Your task to perform on an android device: Open Yahoo.com Image 0: 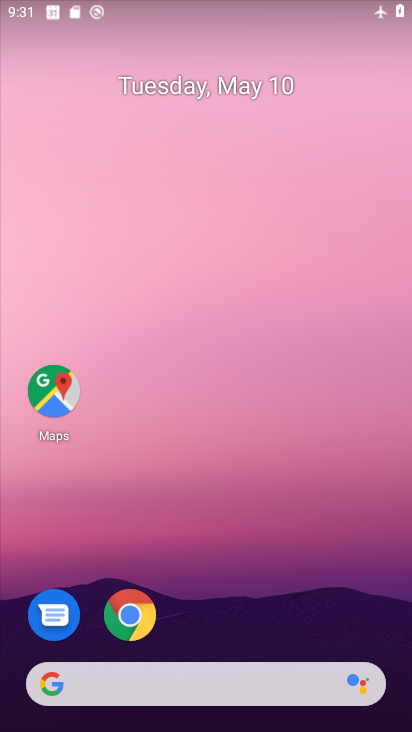
Step 0: drag from (203, 639) to (257, 35)
Your task to perform on an android device: Open Yahoo.com Image 1: 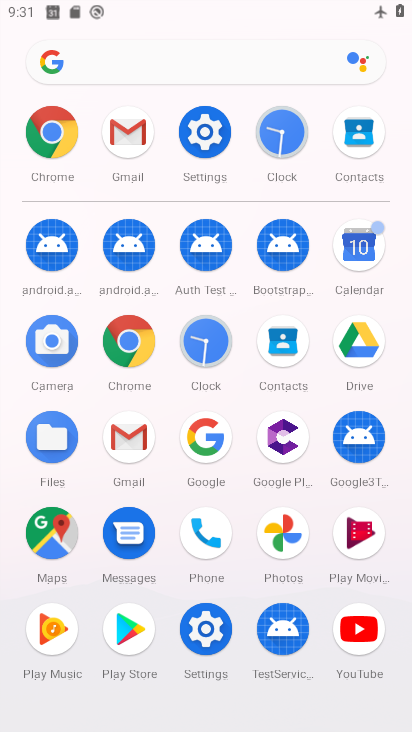
Step 1: click (214, 351)
Your task to perform on an android device: Open Yahoo.com Image 2: 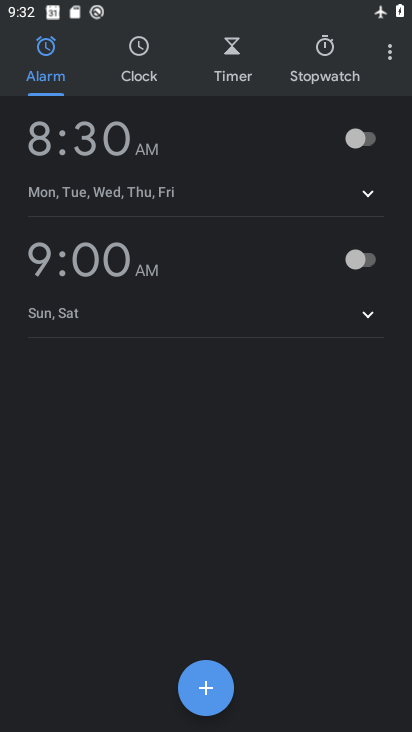
Step 2: press home button
Your task to perform on an android device: Open Yahoo.com Image 3: 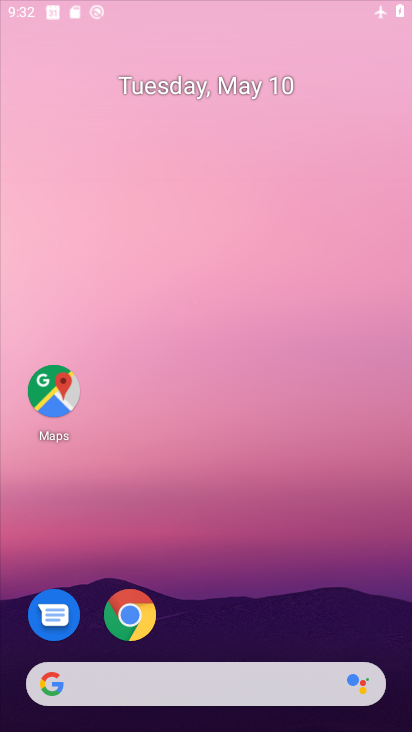
Step 3: drag from (216, 592) to (242, 54)
Your task to perform on an android device: Open Yahoo.com Image 4: 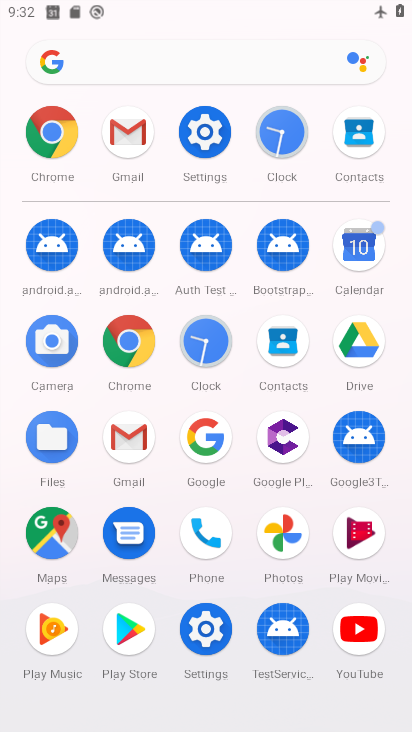
Step 4: click (205, 39)
Your task to perform on an android device: Open Yahoo.com Image 5: 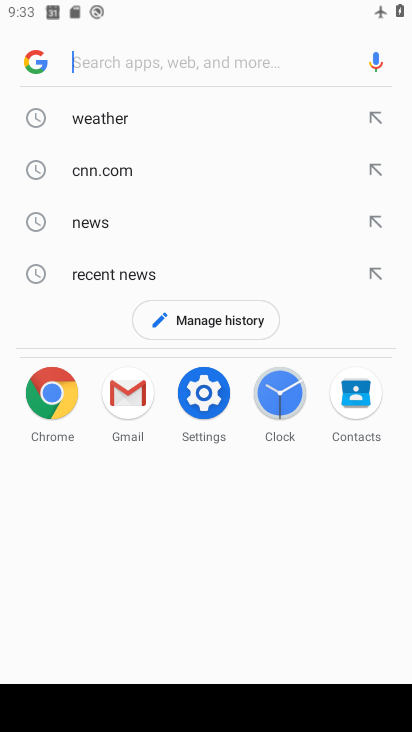
Step 5: click (51, 398)
Your task to perform on an android device: Open Yahoo.com Image 6: 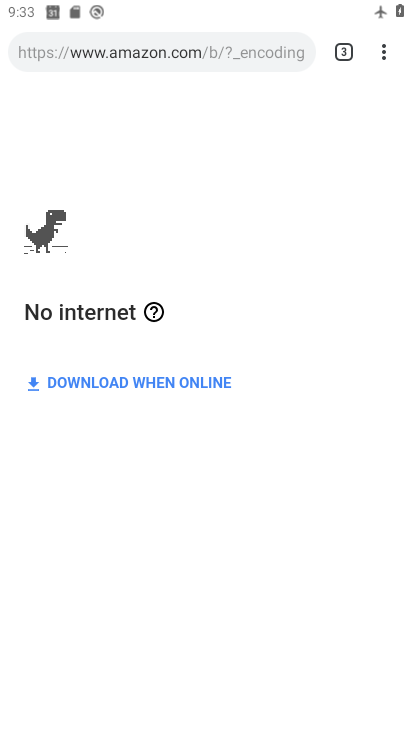
Step 6: task complete